Your task to perform on an android device: turn on sleep mode Image 0: 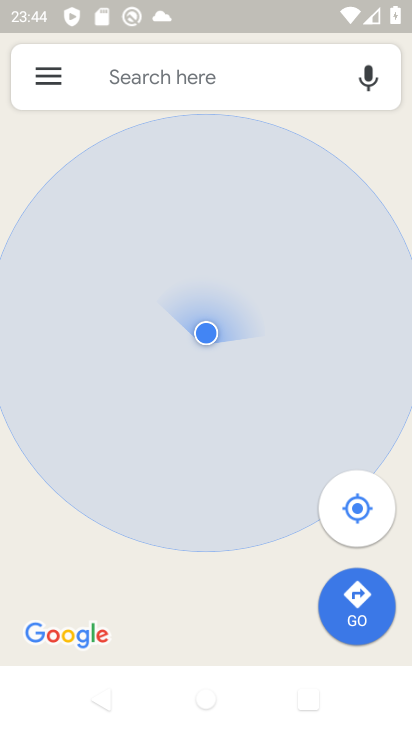
Step 0: press home button
Your task to perform on an android device: turn on sleep mode Image 1: 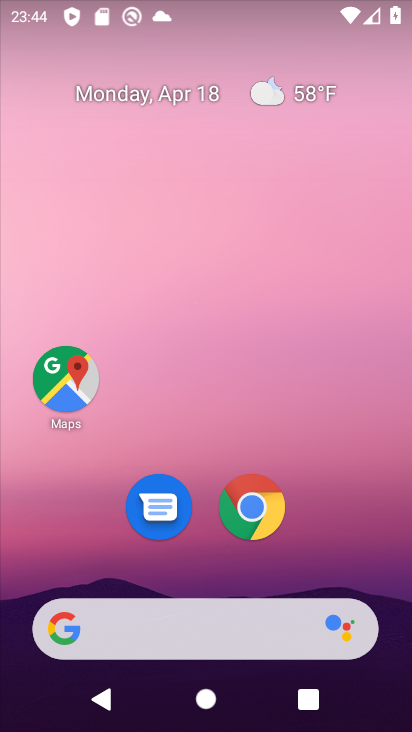
Step 1: drag from (205, 578) to (212, 220)
Your task to perform on an android device: turn on sleep mode Image 2: 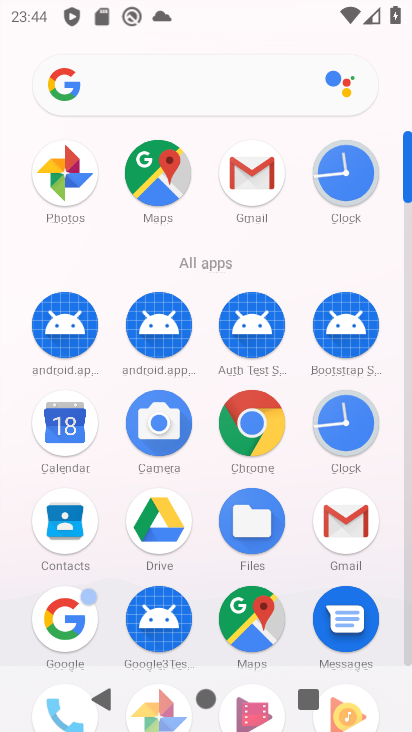
Step 2: drag from (200, 543) to (205, 173)
Your task to perform on an android device: turn on sleep mode Image 3: 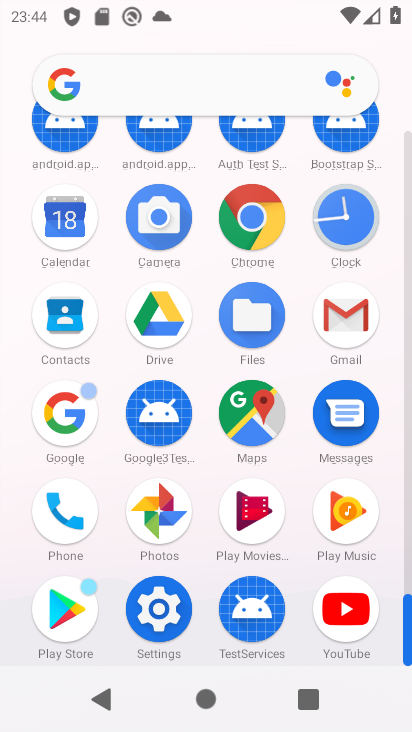
Step 3: click (148, 609)
Your task to perform on an android device: turn on sleep mode Image 4: 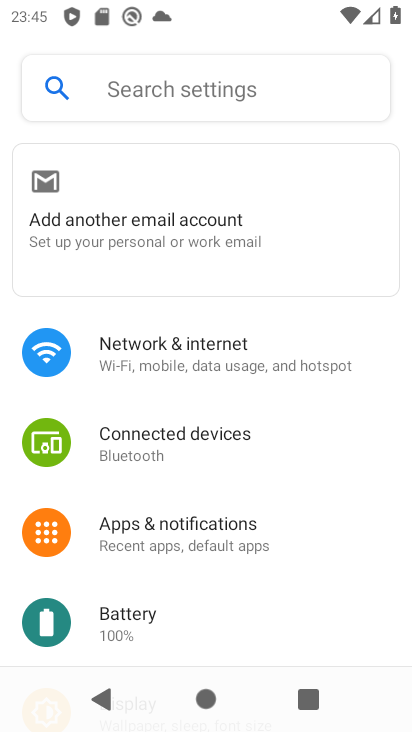
Step 4: drag from (222, 609) to (233, 169)
Your task to perform on an android device: turn on sleep mode Image 5: 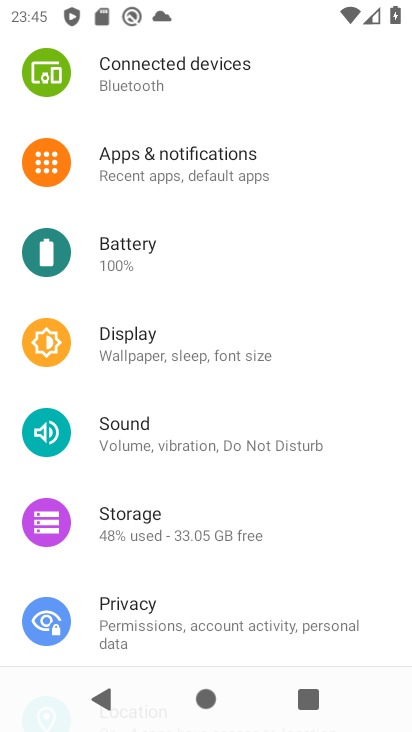
Step 5: click (168, 326)
Your task to perform on an android device: turn on sleep mode Image 6: 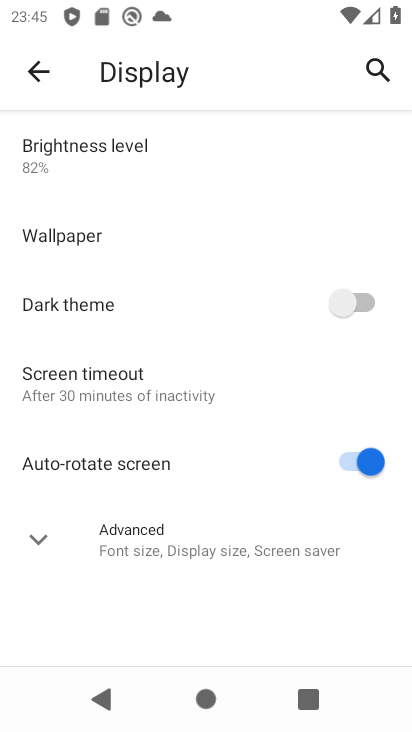
Step 6: click (35, 538)
Your task to perform on an android device: turn on sleep mode Image 7: 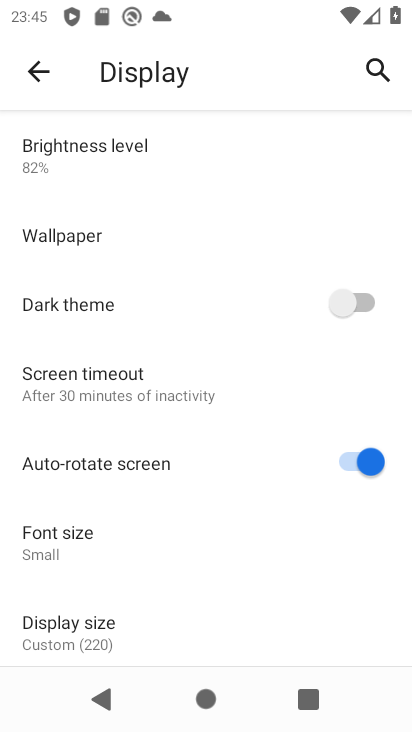
Step 7: task complete